Your task to perform on an android device: Open sound settings Image 0: 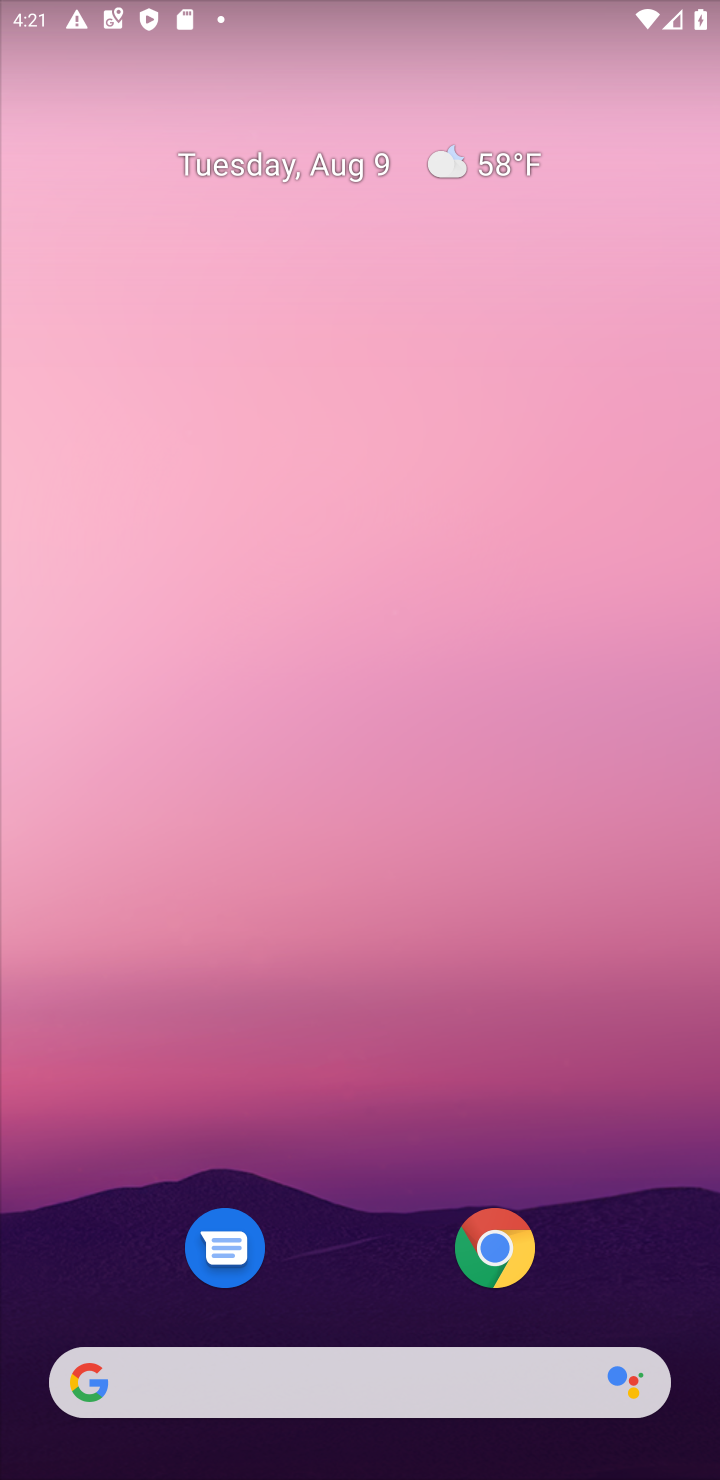
Step 0: drag from (446, 1065) to (356, 408)
Your task to perform on an android device: Open sound settings Image 1: 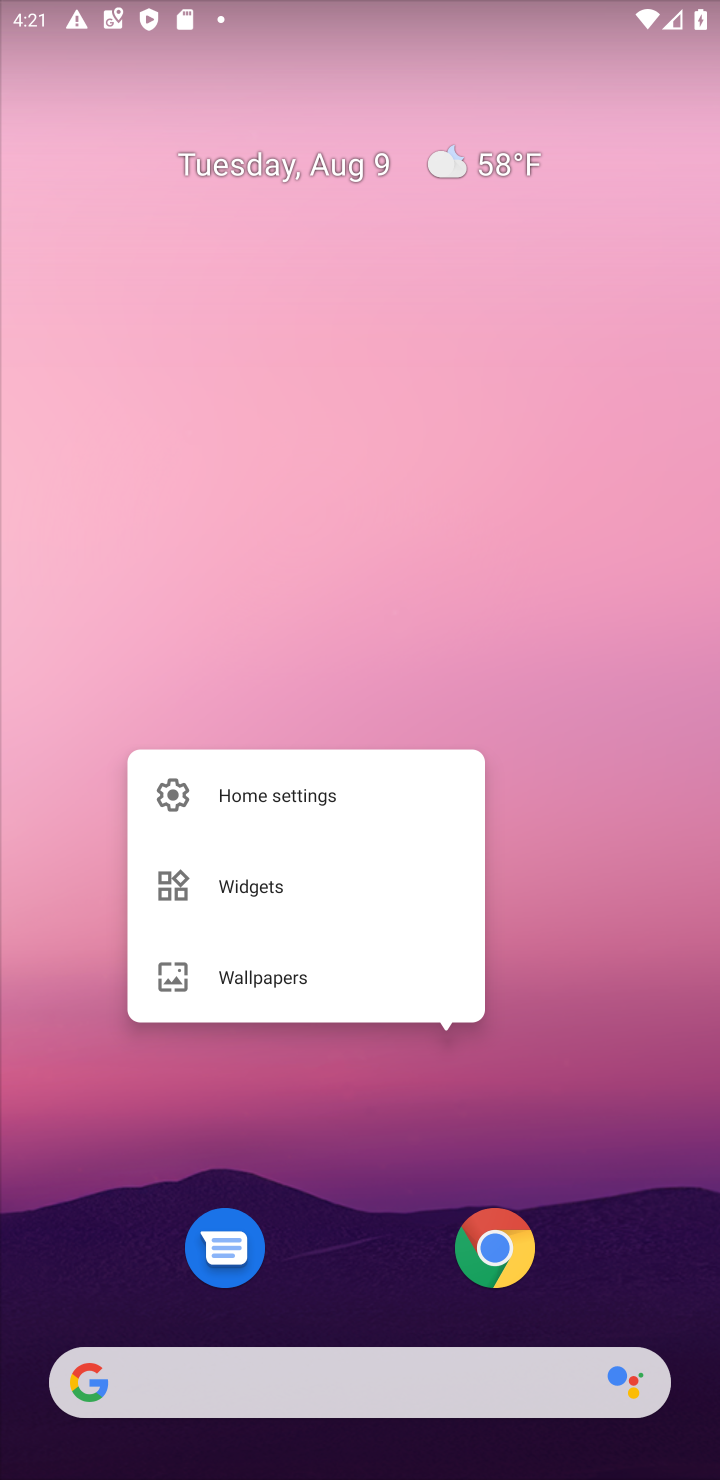
Step 1: click (289, 482)
Your task to perform on an android device: Open sound settings Image 2: 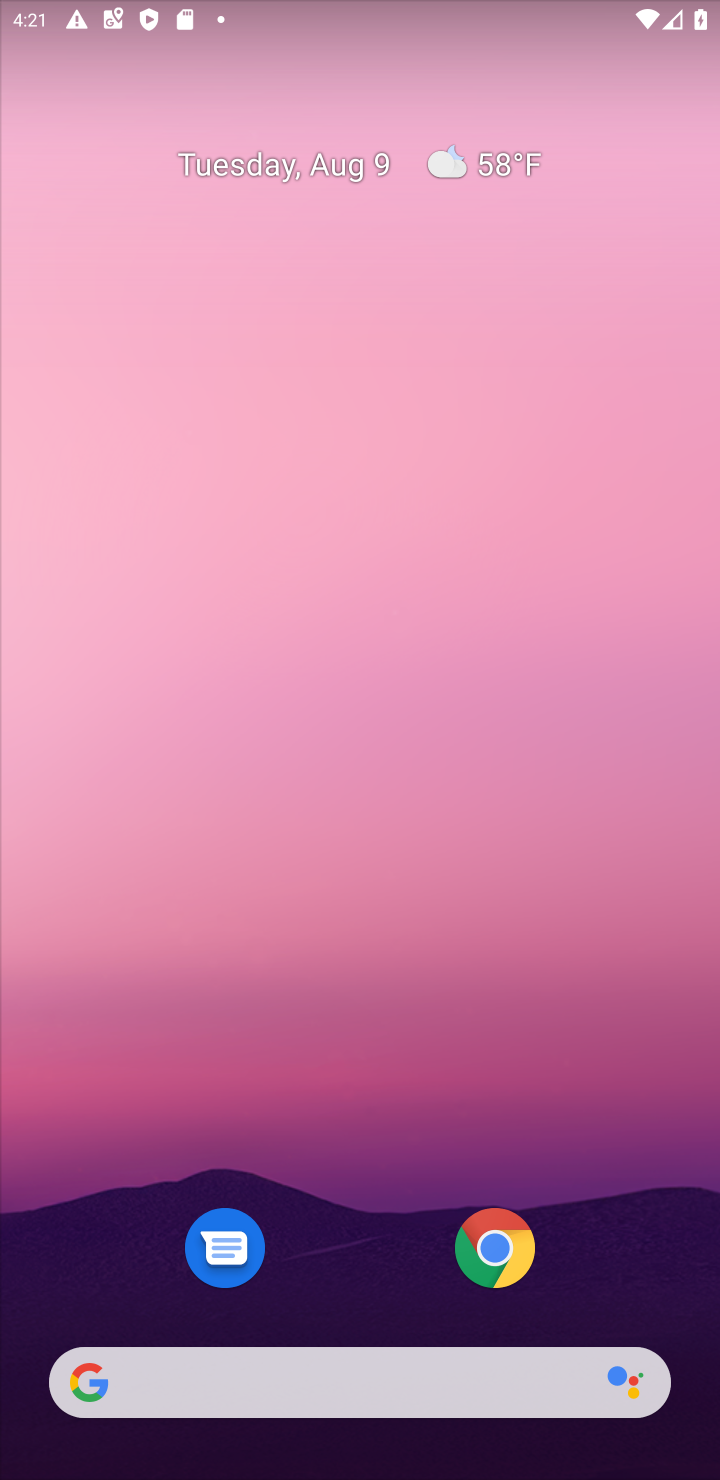
Step 2: drag from (310, 1047) to (141, 239)
Your task to perform on an android device: Open sound settings Image 3: 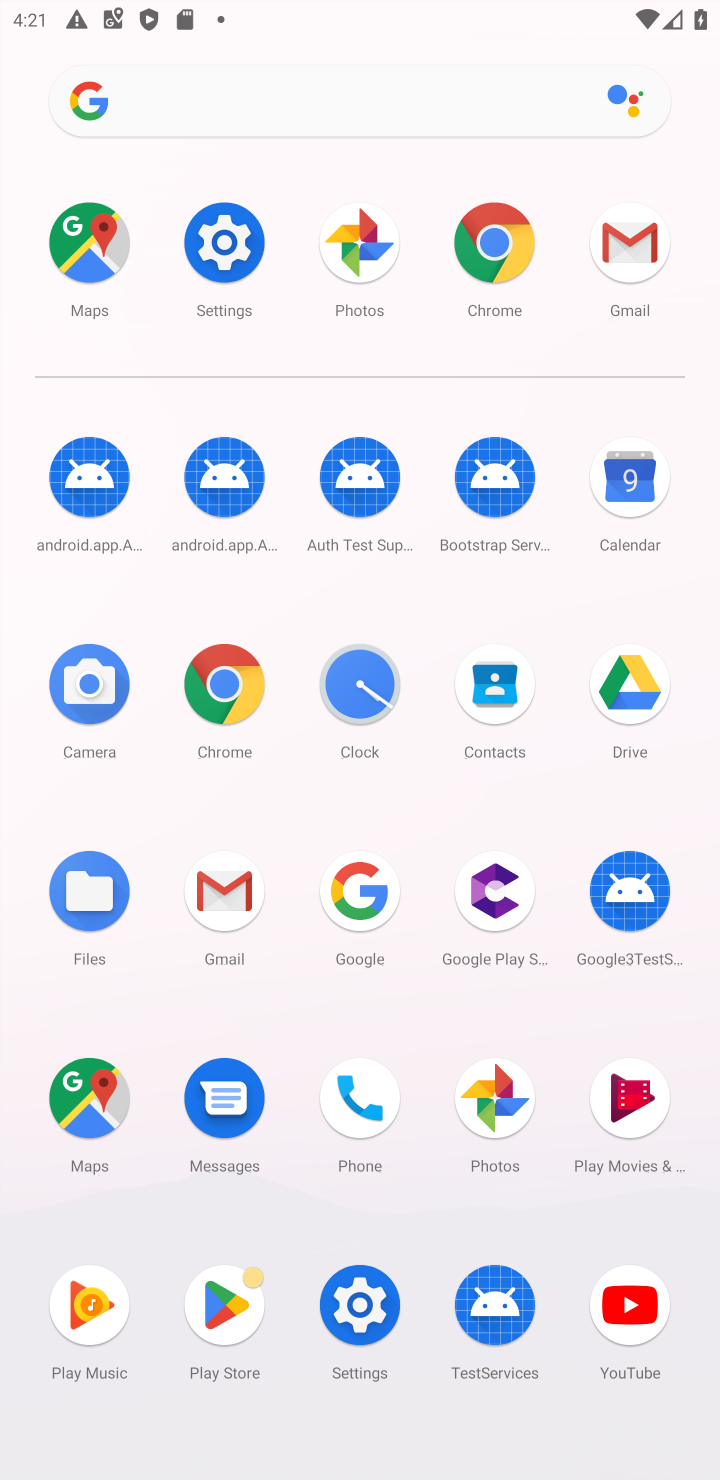
Step 3: click (360, 1304)
Your task to perform on an android device: Open sound settings Image 4: 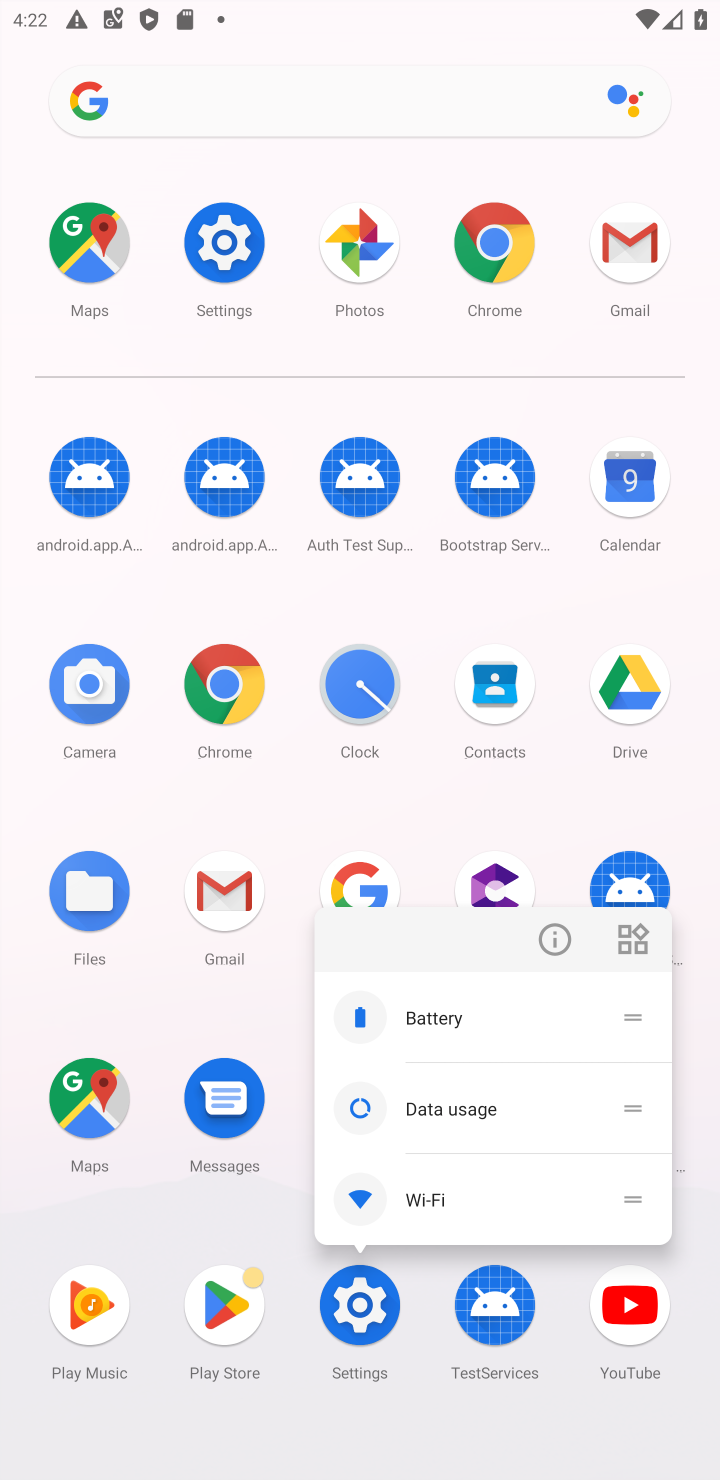
Step 4: click (356, 1299)
Your task to perform on an android device: Open sound settings Image 5: 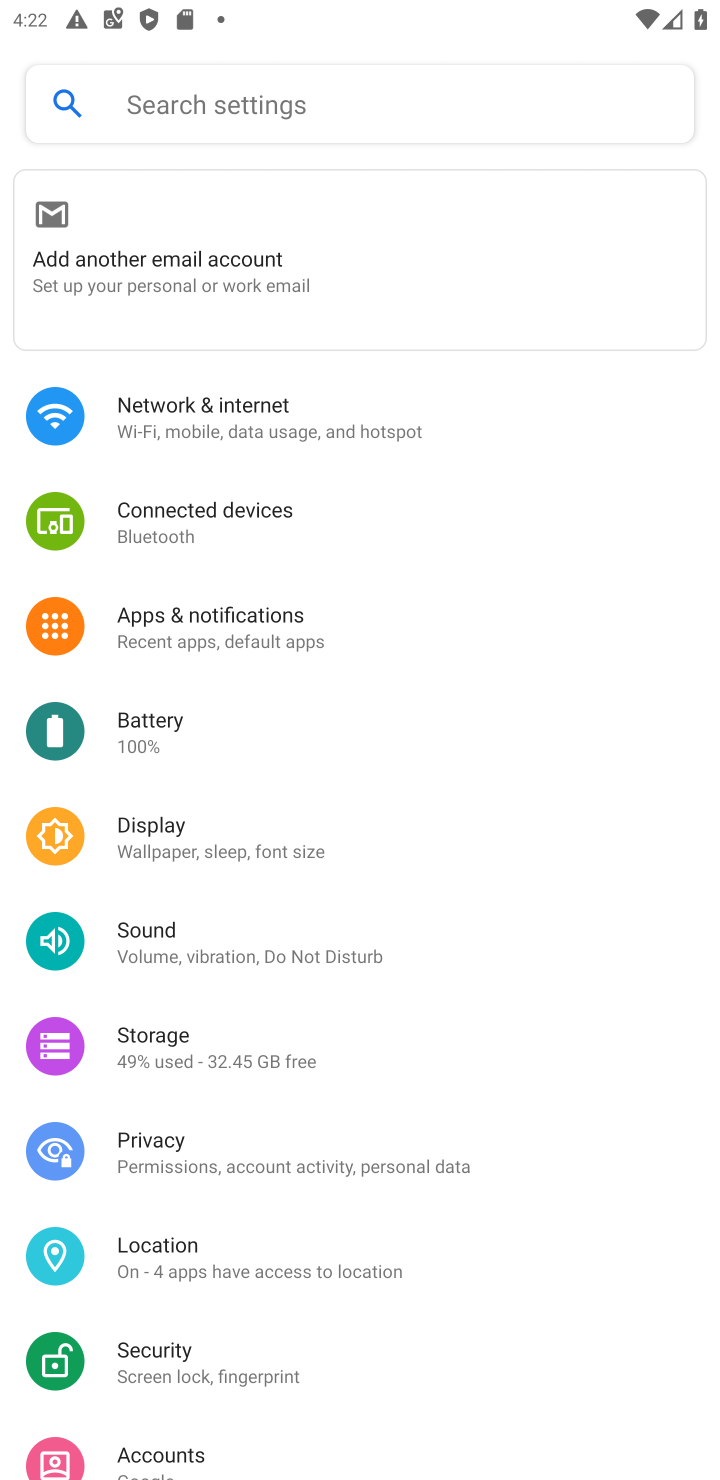
Step 5: click (182, 932)
Your task to perform on an android device: Open sound settings Image 6: 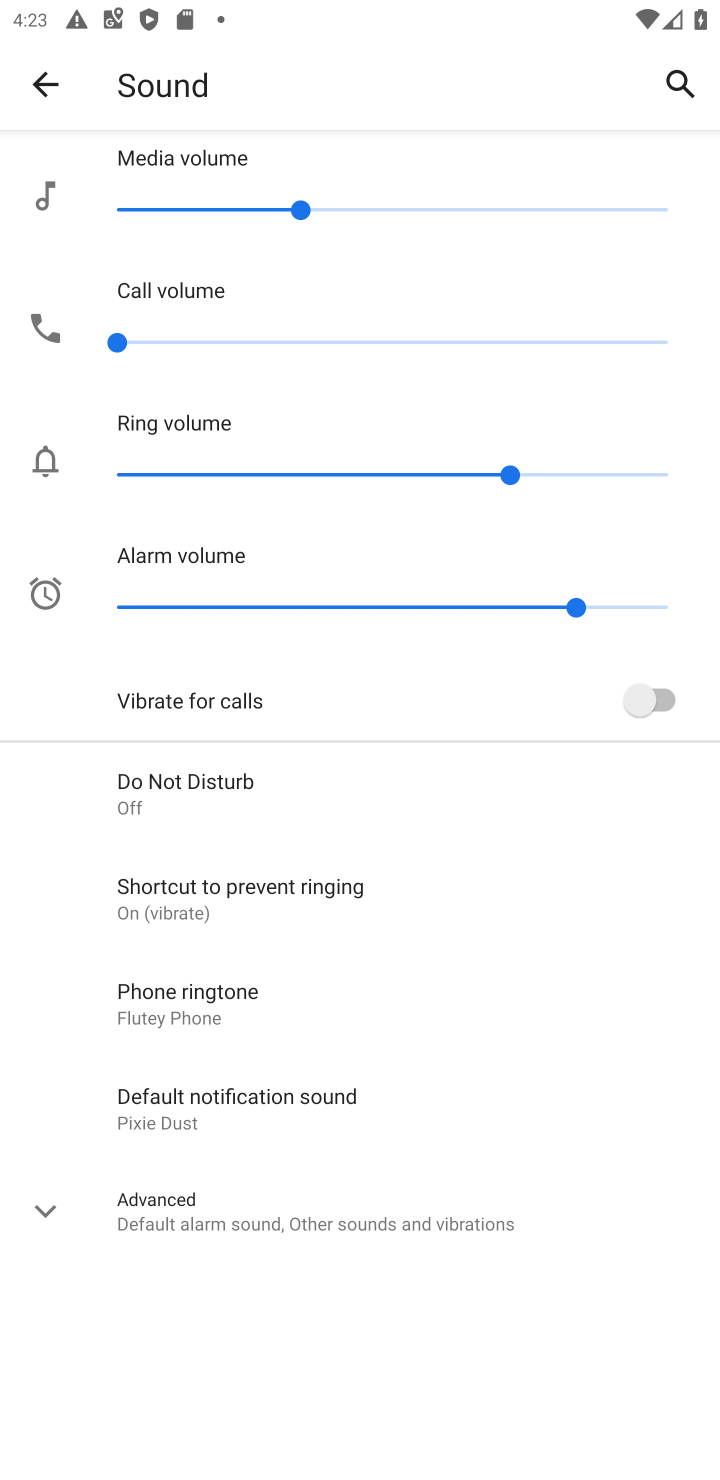
Step 6: task complete